Your task to perform on an android device: toggle show notifications on the lock screen Image 0: 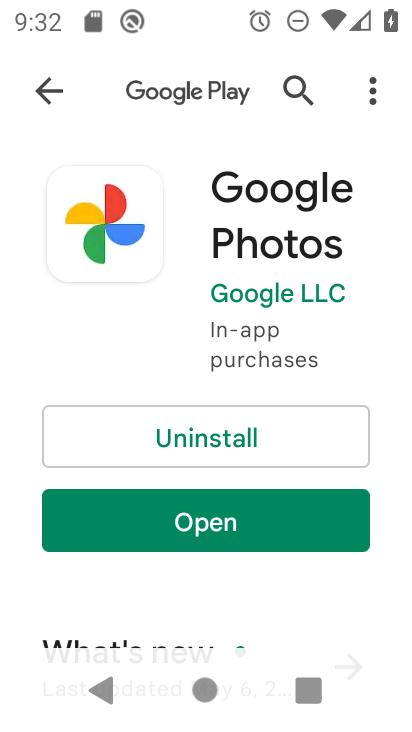
Step 0: press home button
Your task to perform on an android device: toggle show notifications on the lock screen Image 1: 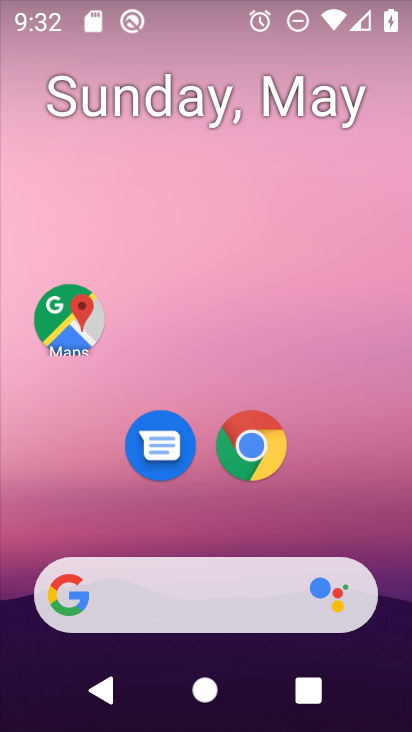
Step 1: drag from (236, 567) to (244, 325)
Your task to perform on an android device: toggle show notifications on the lock screen Image 2: 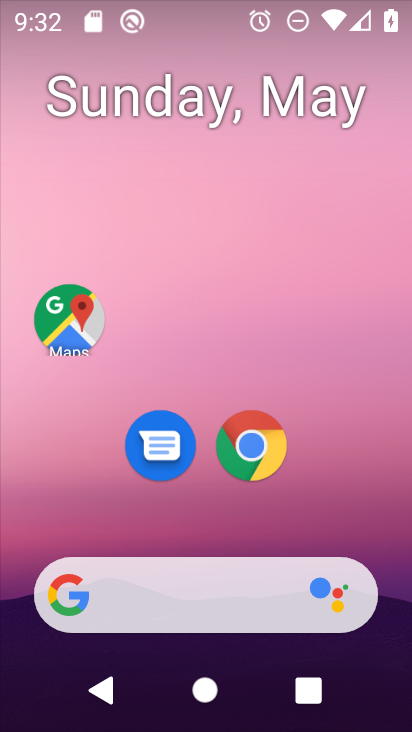
Step 2: drag from (364, 593) to (355, 217)
Your task to perform on an android device: toggle show notifications on the lock screen Image 3: 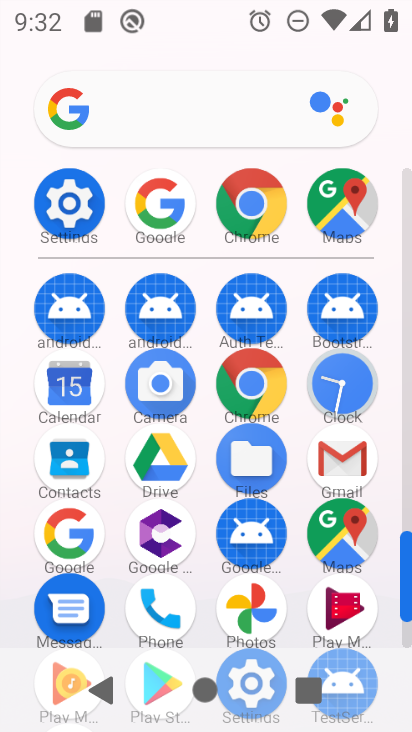
Step 3: click (89, 215)
Your task to perform on an android device: toggle show notifications on the lock screen Image 4: 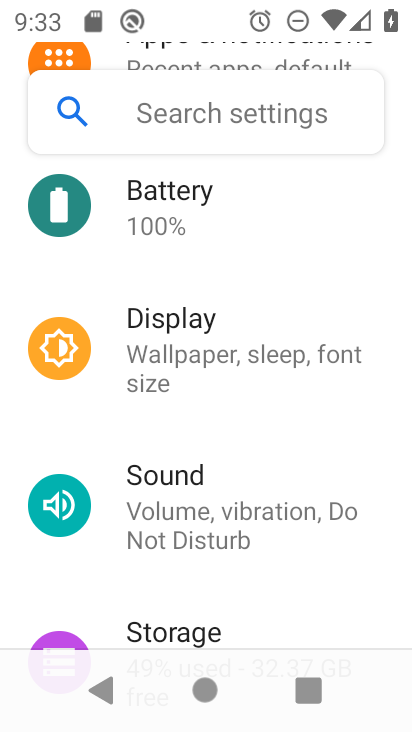
Step 4: drag from (225, 446) to (243, 318)
Your task to perform on an android device: toggle show notifications on the lock screen Image 5: 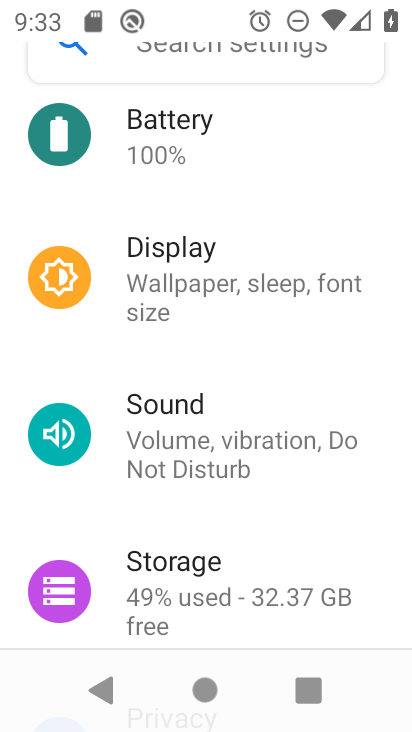
Step 5: drag from (256, 273) to (211, 627)
Your task to perform on an android device: toggle show notifications on the lock screen Image 6: 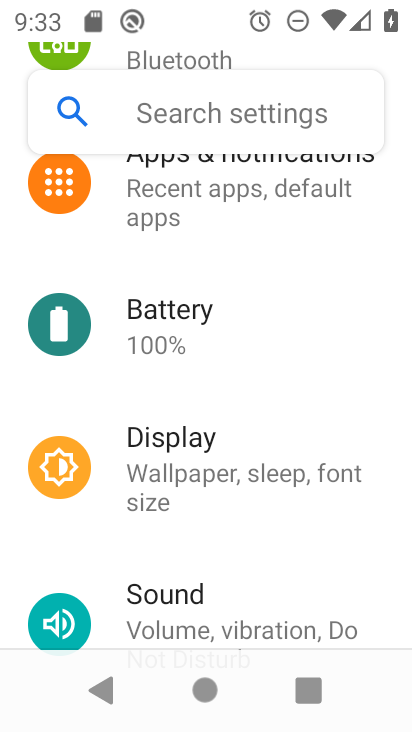
Step 6: drag from (251, 333) to (222, 586)
Your task to perform on an android device: toggle show notifications on the lock screen Image 7: 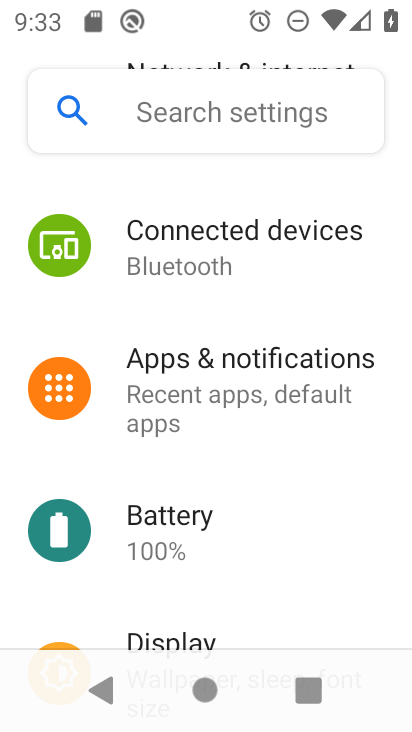
Step 7: click (255, 401)
Your task to perform on an android device: toggle show notifications on the lock screen Image 8: 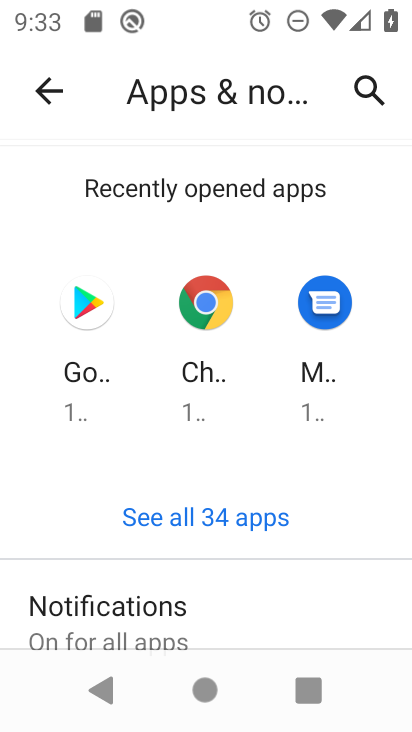
Step 8: drag from (236, 590) to (285, 349)
Your task to perform on an android device: toggle show notifications on the lock screen Image 9: 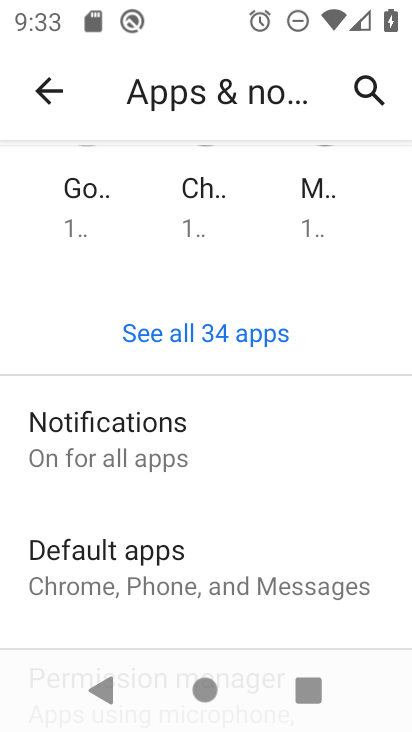
Step 9: click (232, 436)
Your task to perform on an android device: toggle show notifications on the lock screen Image 10: 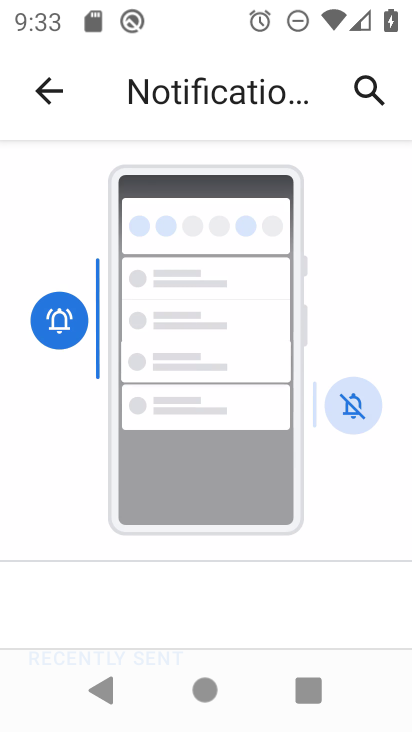
Step 10: drag from (241, 542) to (248, 352)
Your task to perform on an android device: toggle show notifications on the lock screen Image 11: 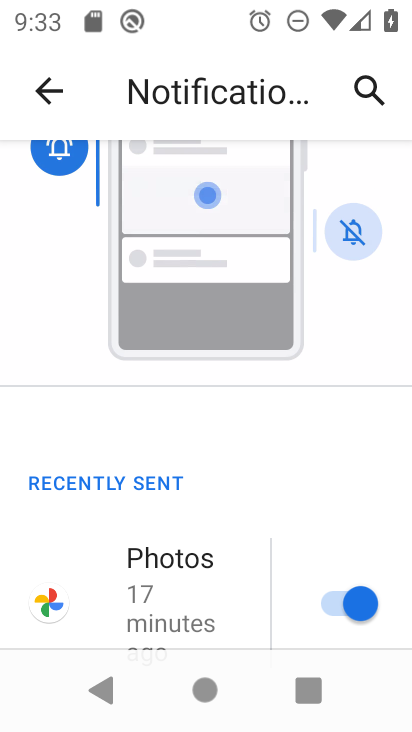
Step 11: drag from (282, 502) to (282, 374)
Your task to perform on an android device: toggle show notifications on the lock screen Image 12: 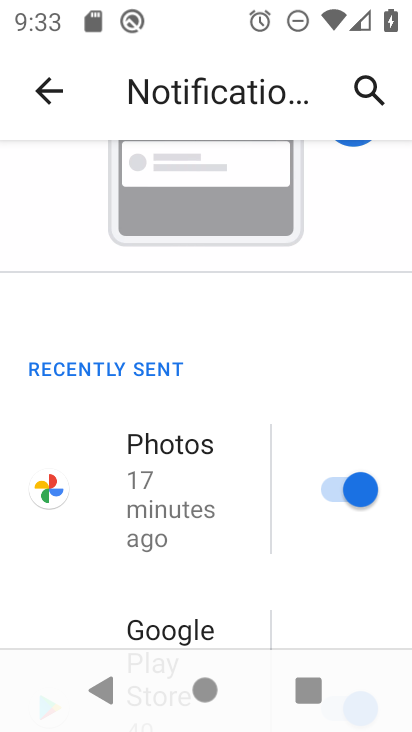
Step 12: drag from (258, 479) to (290, 327)
Your task to perform on an android device: toggle show notifications on the lock screen Image 13: 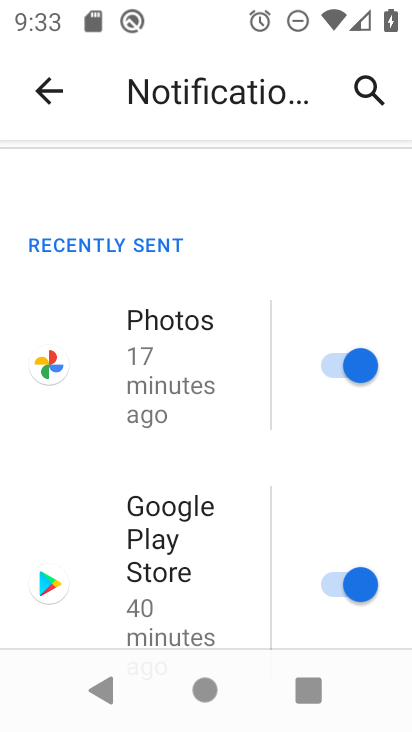
Step 13: drag from (249, 532) to (277, 348)
Your task to perform on an android device: toggle show notifications on the lock screen Image 14: 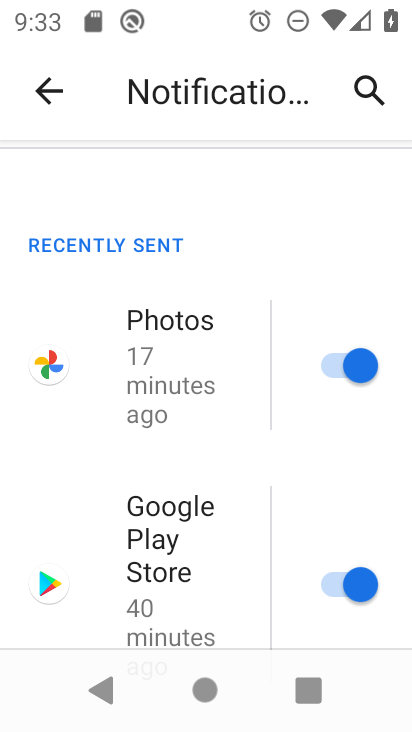
Step 14: drag from (272, 554) to (331, 261)
Your task to perform on an android device: toggle show notifications on the lock screen Image 15: 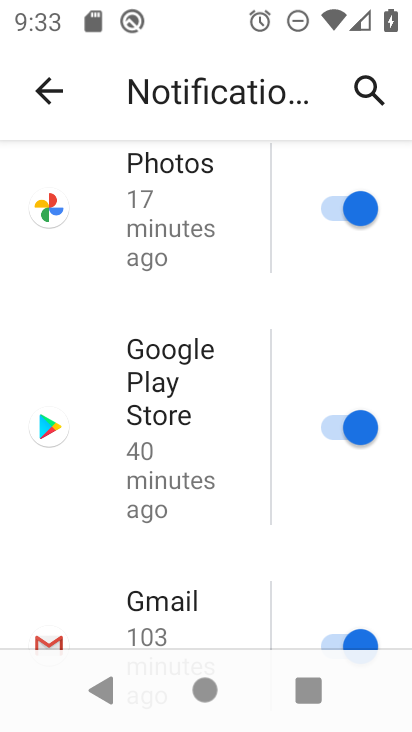
Step 15: drag from (293, 524) to (296, 207)
Your task to perform on an android device: toggle show notifications on the lock screen Image 16: 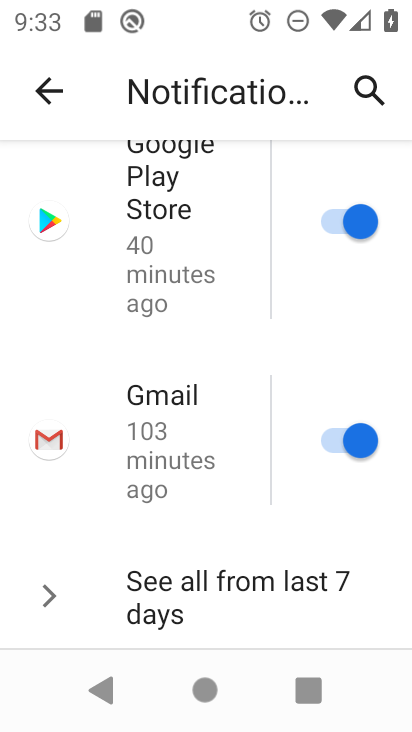
Step 16: drag from (304, 431) to (303, 270)
Your task to perform on an android device: toggle show notifications on the lock screen Image 17: 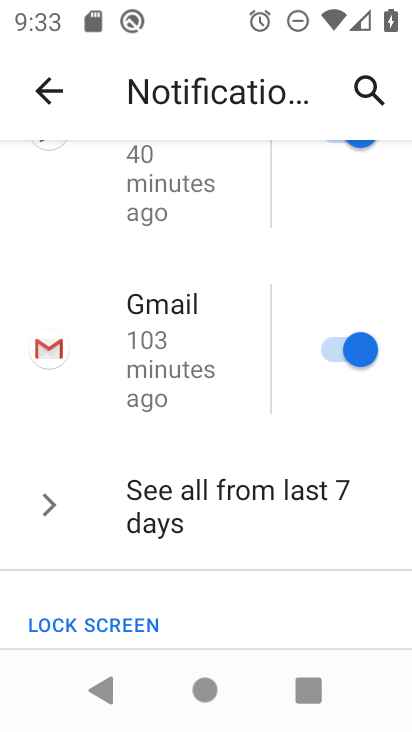
Step 17: drag from (291, 509) to (308, 319)
Your task to perform on an android device: toggle show notifications on the lock screen Image 18: 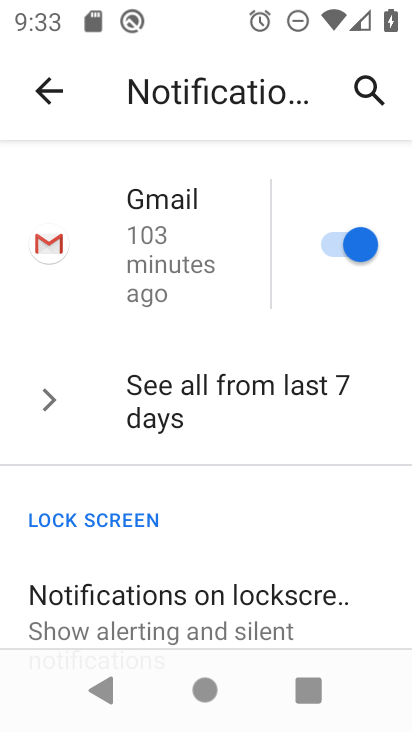
Step 18: drag from (289, 521) to (311, 373)
Your task to perform on an android device: toggle show notifications on the lock screen Image 19: 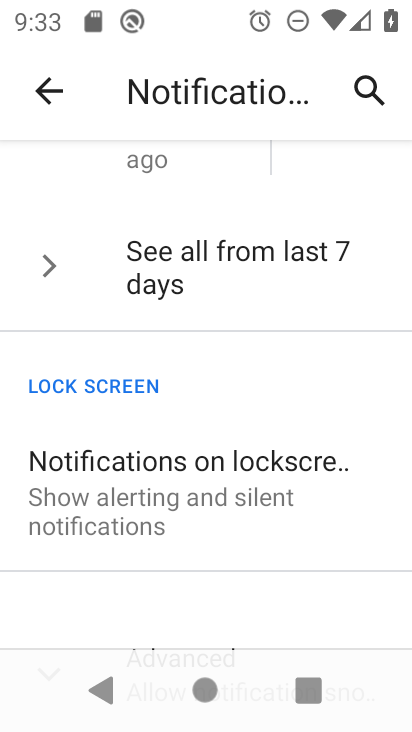
Step 19: click (288, 494)
Your task to perform on an android device: toggle show notifications on the lock screen Image 20: 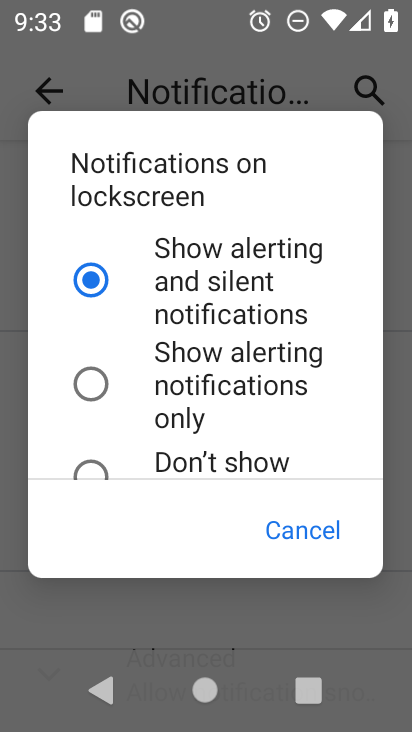
Step 20: drag from (266, 459) to (278, 319)
Your task to perform on an android device: toggle show notifications on the lock screen Image 21: 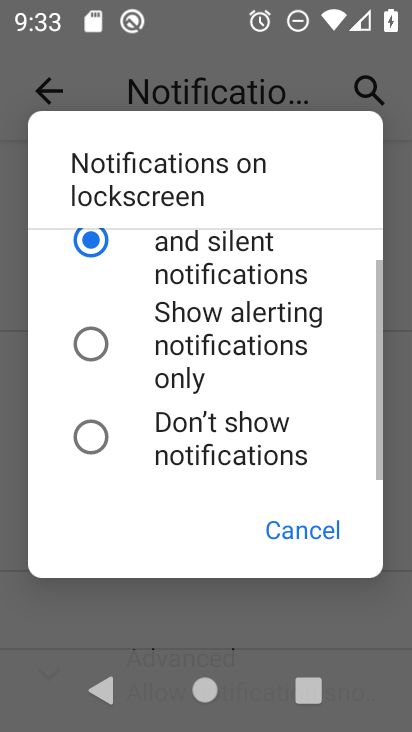
Step 21: click (86, 438)
Your task to perform on an android device: toggle show notifications on the lock screen Image 22: 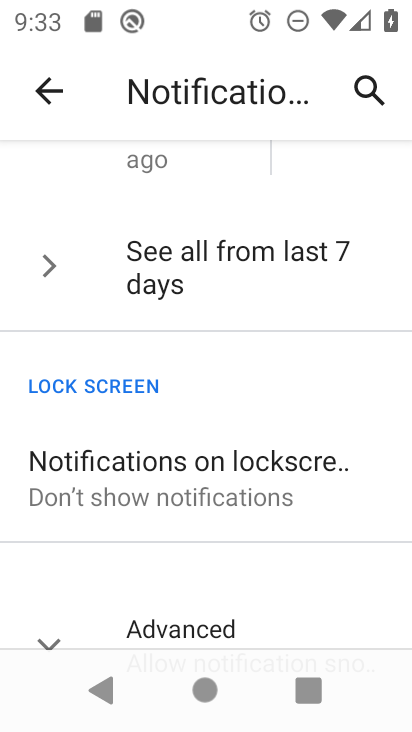
Step 22: task complete